Your task to perform on an android device: Open Youtube and go to "Your channel" Image 0: 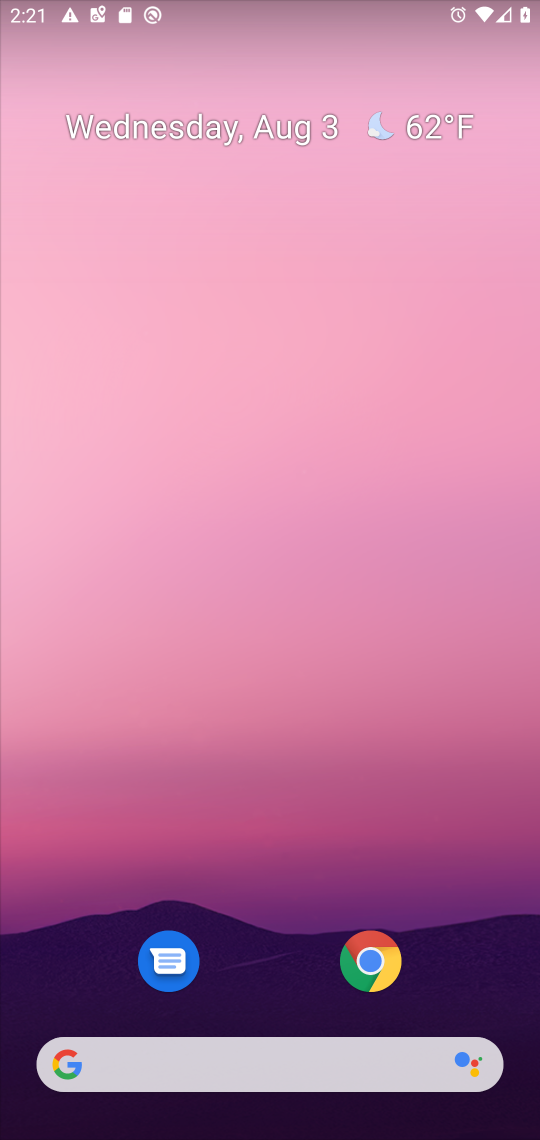
Step 0: drag from (276, 930) to (279, 17)
Your task to perform on an android device: Open Youtube and go to "Your channel" Image 1: 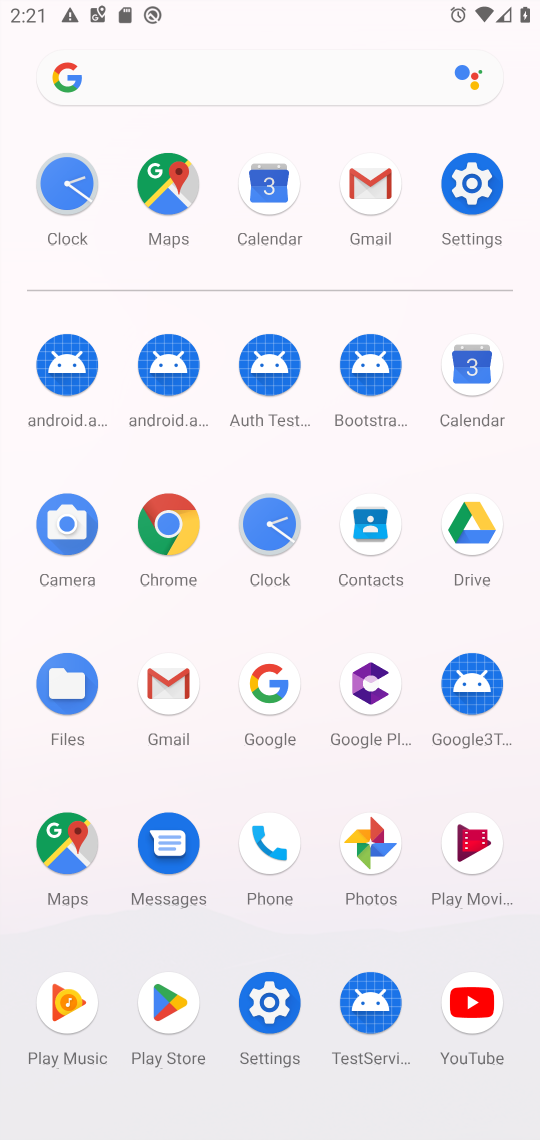
Step 1: click (472, 1004)
Your task to perform on an android device: Open Youtube and go to "Your channel" Image 2: 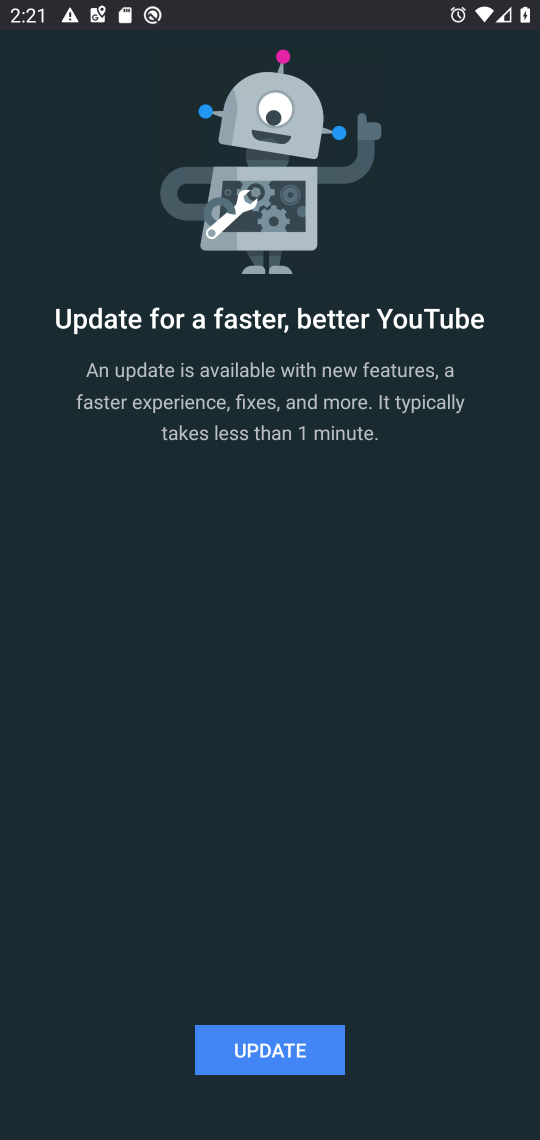
Step 2: click (267, 1054)
Your task to perform on an android device: Open Youtube and go to "Your channel" Image 3: 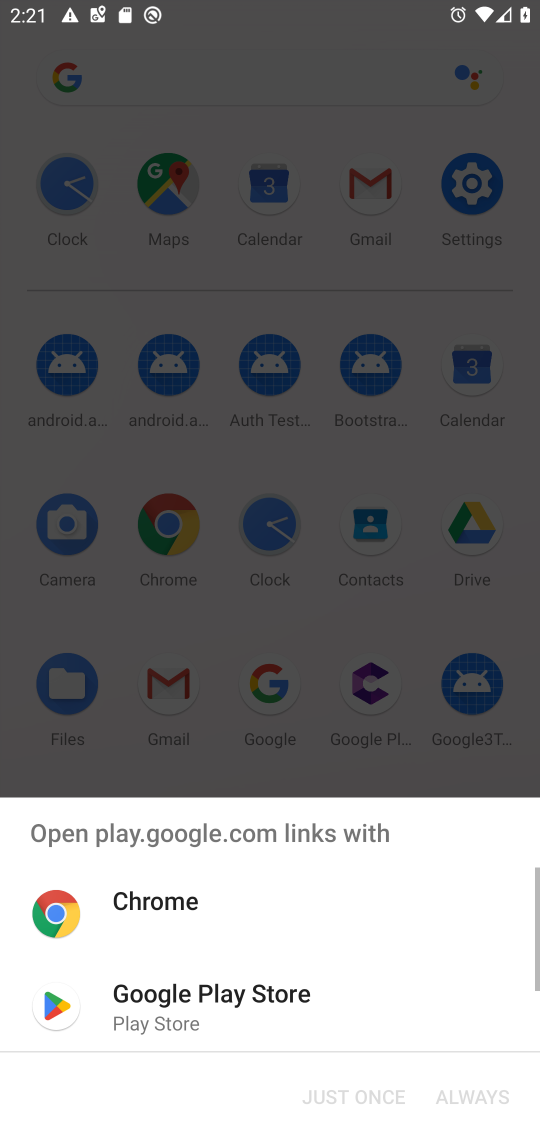
Step 3: click (122, 1006)
Your task to perform on an android device: Open Youtube and go to "Your channel" Image 4: 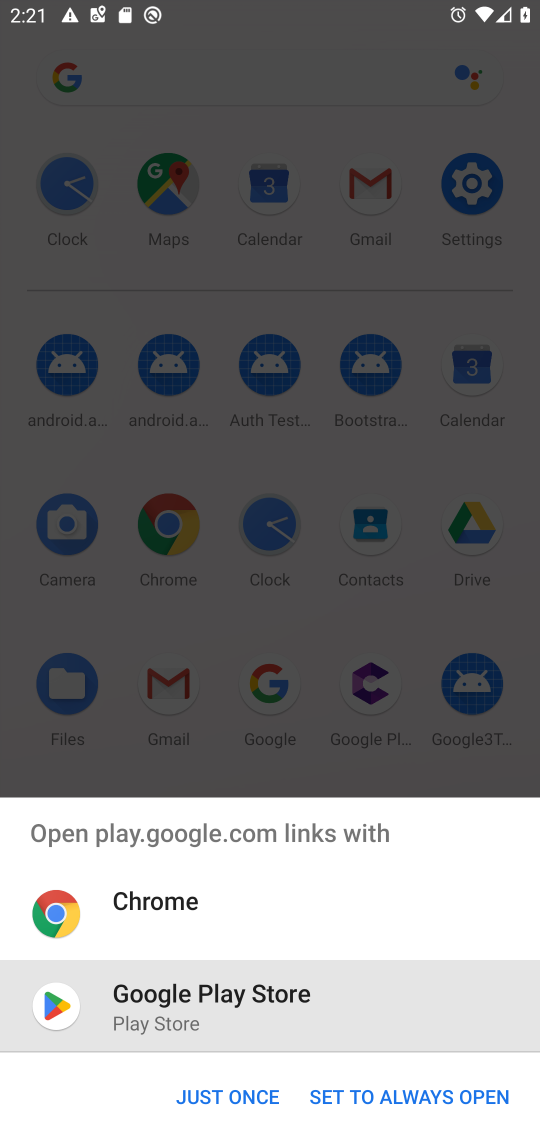
Step 4: click (195, 1095)
Your task to perform on an android device: Open Youtube and go to "Your channel" Image 5: 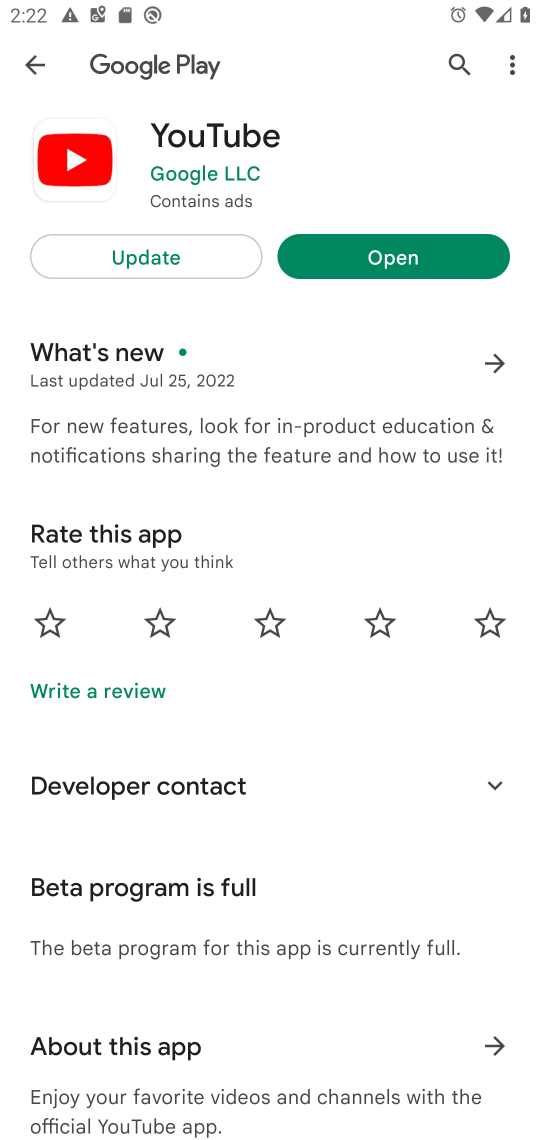
Step 5: click (172, 262)
Your task to perform on an android device: Open Youtube and go to "Your channel" Image 6: 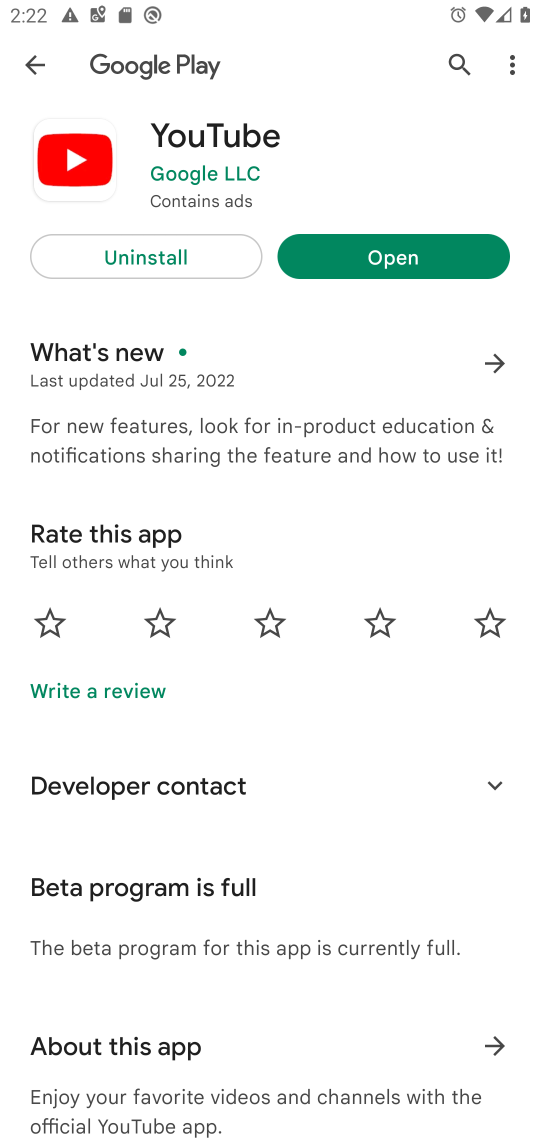
Step 6: click (389, 259)
Your task to perform on an android device: Open Youtube and go to "Your channel" Image 7: 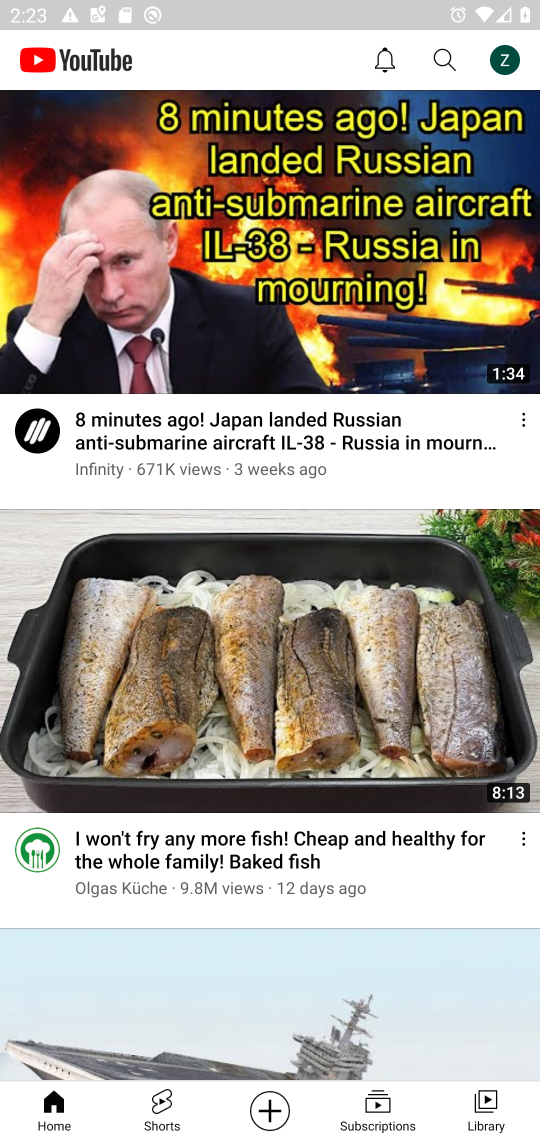
Step 7: click (505, 71)
Your task to perform on an android device: Open Youtube and go to "Your channel" Image 8: 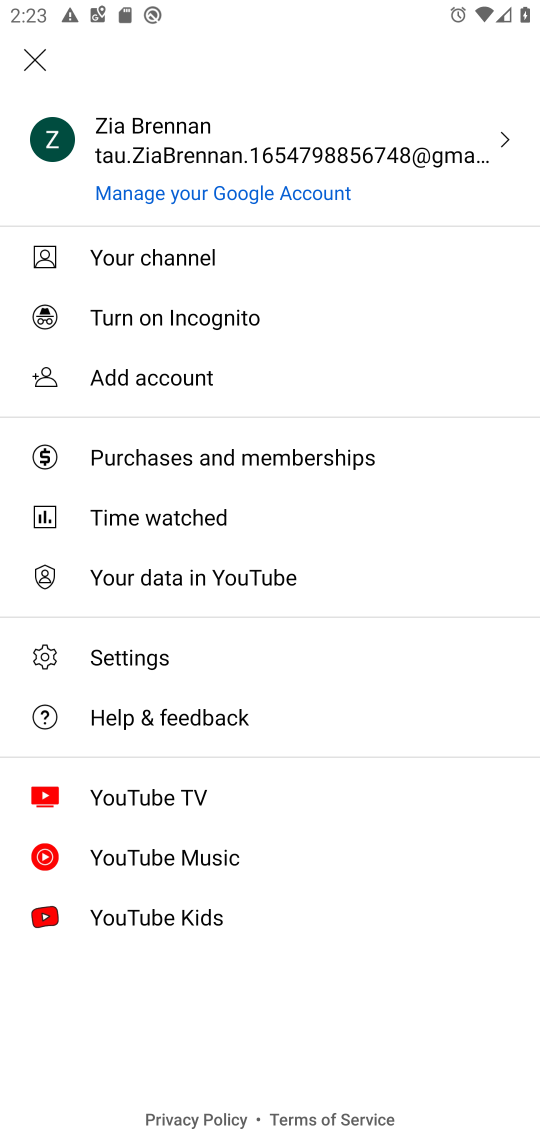
Step 8: click (167, 257)
Your task to perform on an android device: Open Youtube and go to "Your channel" Image 9: 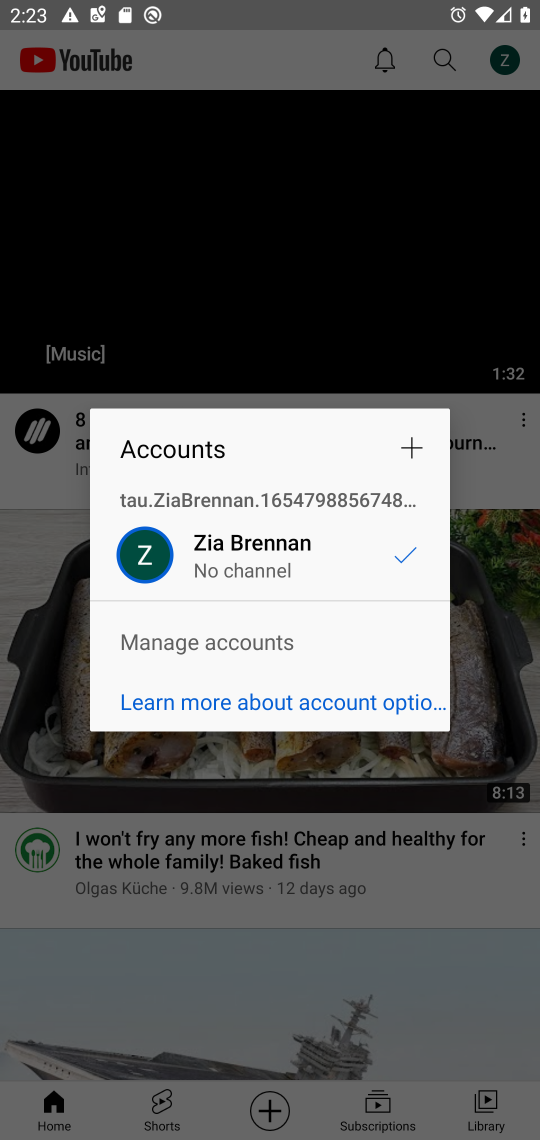
Step 9: task complete